Your task to perform on an android device: turn on showing notifications on the lock screen Image 0: 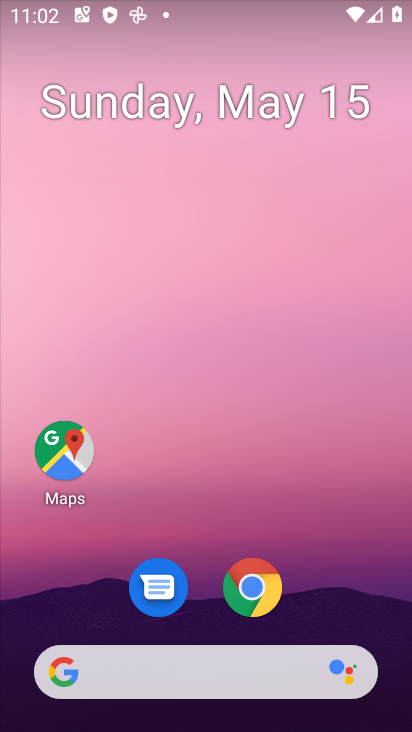
Step 0: drag from (364, 551) to (282, 101)
Your task to perform on an android device: turn on showing notifications on the lock screen Image 1: 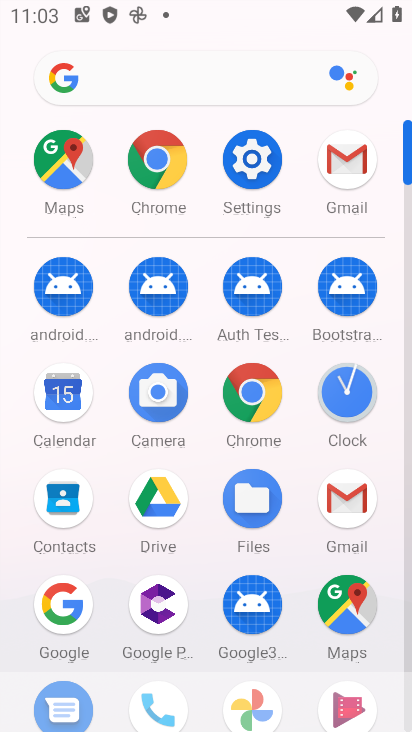
Step 1: click (261, 173)
Your task to perform on an android device: turn on showing notifications on the lock screen Image 2: 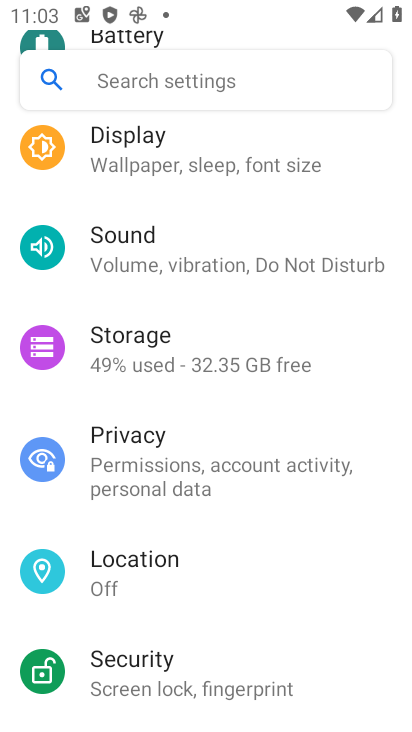
Step 2: drag from (201, 178) to (215, 631)
Your task to perform on an android device: turn on showing notifications on the lock screen Image 3: 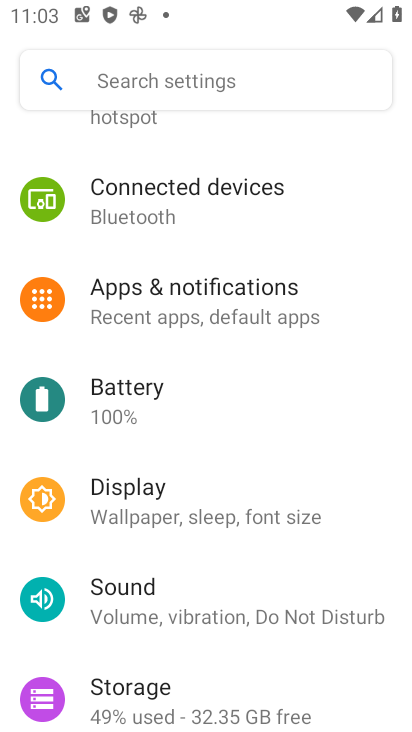
Step 3: click (219, 310)
Your task to perform on an android device: turn on showing notifications on the lock screen Image 4: 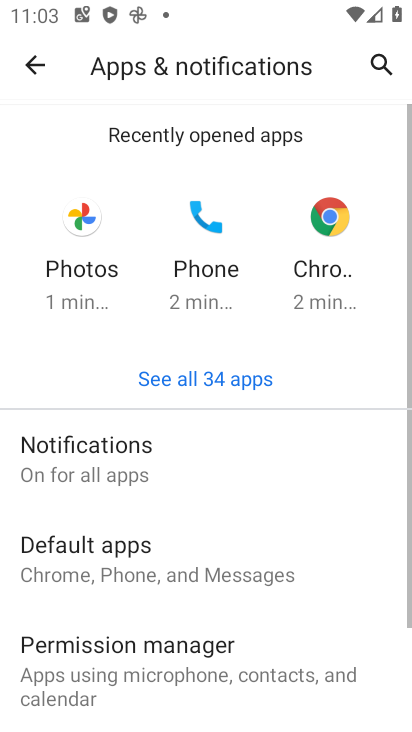
Step 4: click (204, 457)
Your task to perform on an android device: turn on showing notifications on the lock screen Image 5: 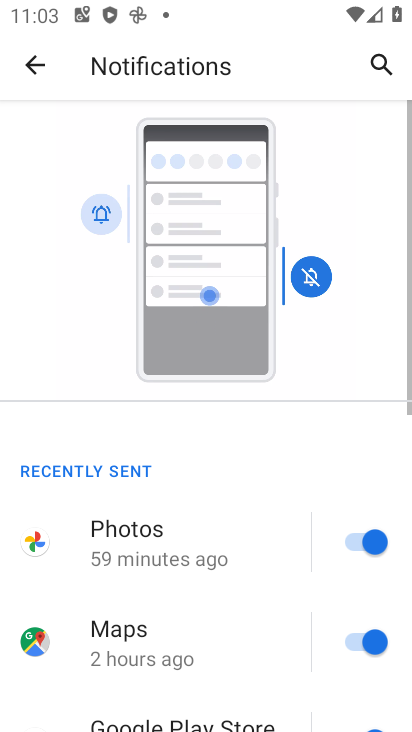
Step 5: drag from (200, 708) to (230, 93)
Your task to perform on an android device: turn on showing notifications on the lock screen Image 6: 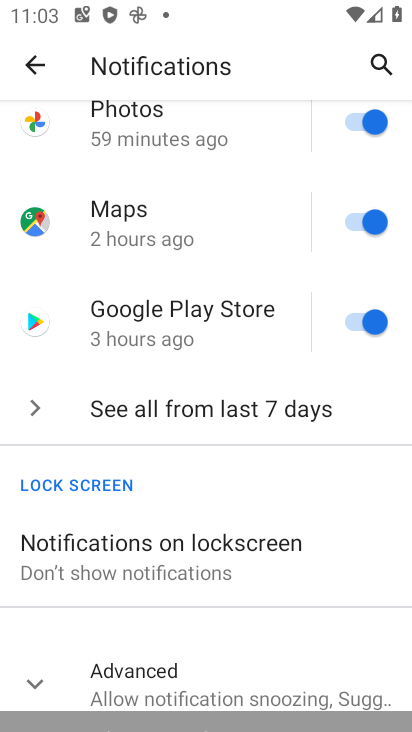
Step 6: click (267, 566)
Your task to perform on an android device: turn on showing notifications on the lock screen Image 7: 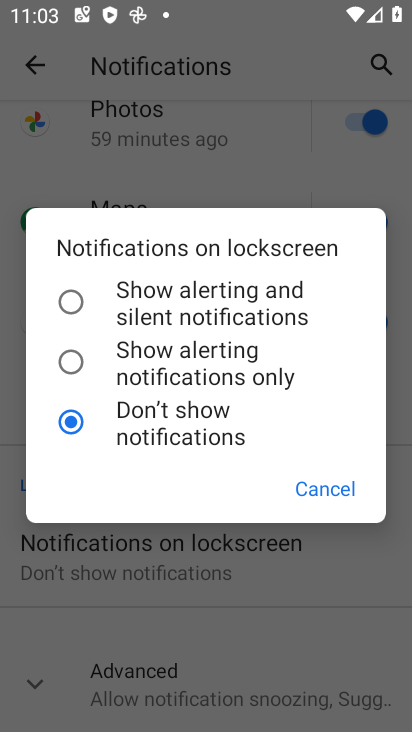
Step 7: click (128, 304)
Your task to perform on an android device: turn on showing notifications on the lock screen Image 8: 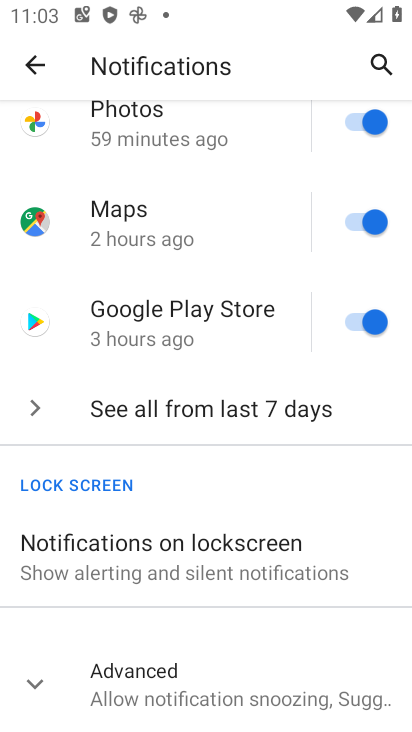
Step 8: task complete